Your task to perform on an android device: add a contact Image 0: 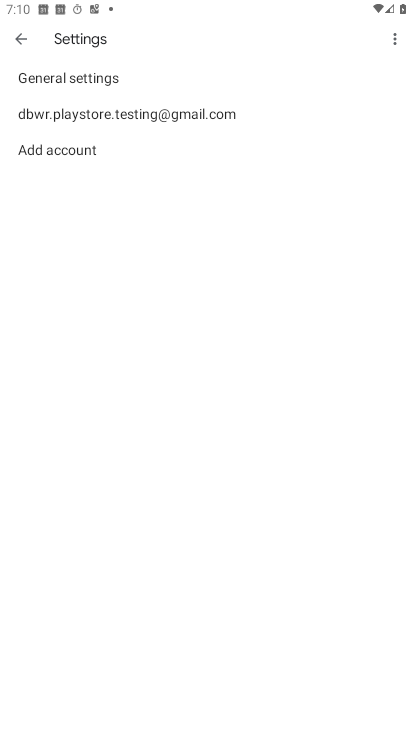
Step 0: press home button
Your task to perform on an android device: add a contact Image 1: 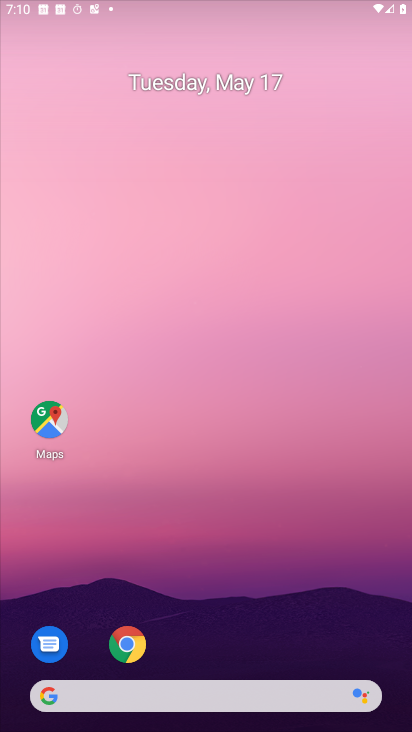
Step 1: drag from (374, 635) to (262, 65)
Your task to perform on an android device: add a contact Image 2: 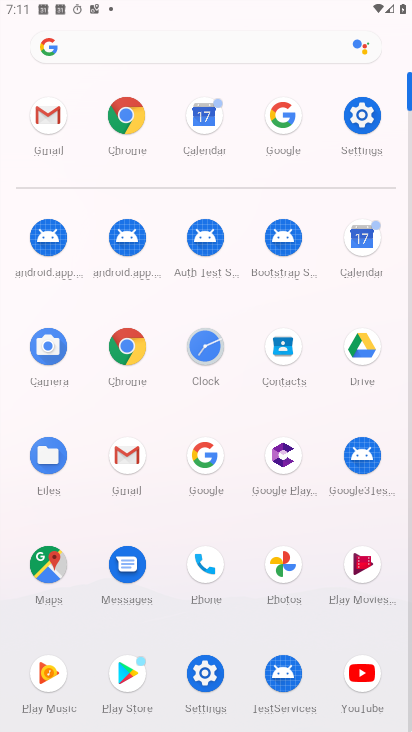
Step 2: click (298, 345)
Your task to perform on an android device: add a contact Image 3: 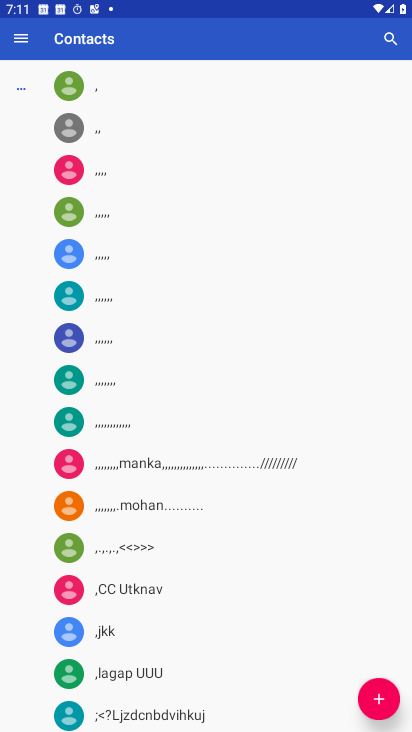
Step 3: click (389, 684)
Your task to perform on an android device: add a contact Image 4: 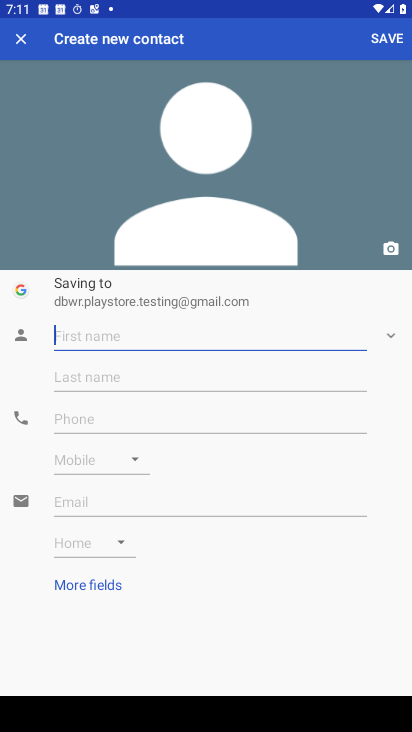
Step 4: type "ladoo"
Your task to perform on an android device: add a contact Image 5: 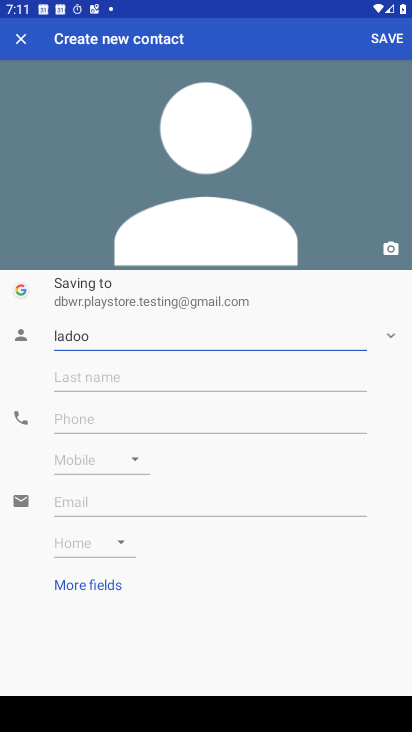
Step 5: click (390, 39)
Your task to perform on an android device: add a contact Image 6: 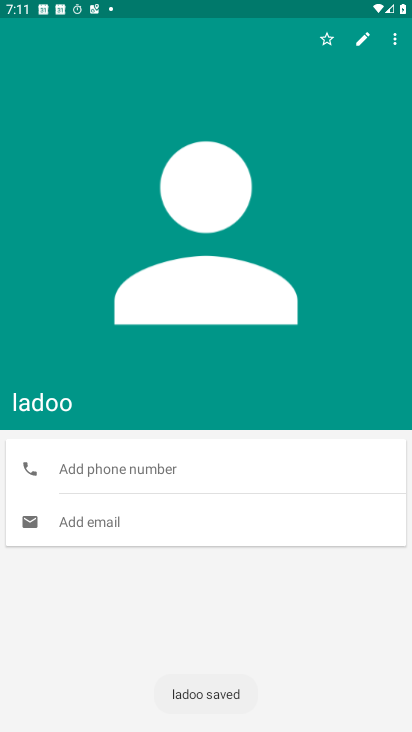
Step 6: task complete